Your task to perform on an android device: What's the weather going to be tomorrow? Image 0: 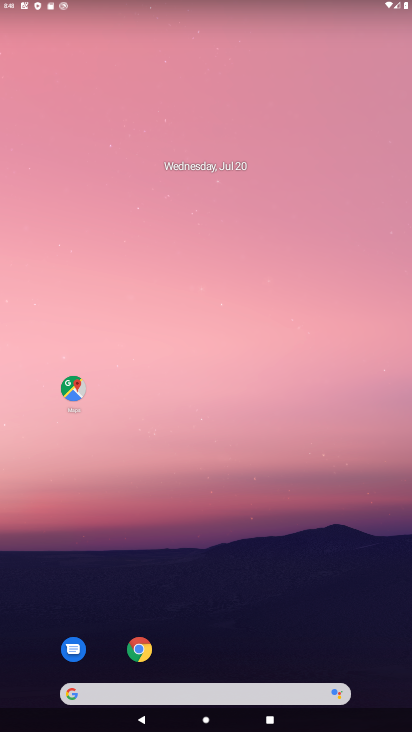
Step 0: drag from (276, 649) to (289, 167)
Your task to perform on an android device: What's the weather going to be tomorrow? Image 1: 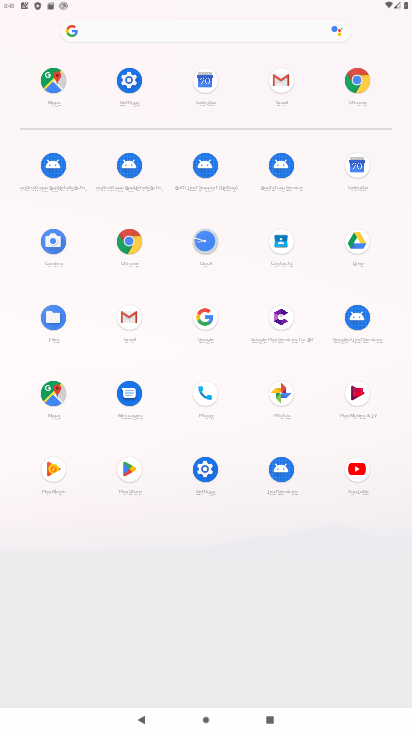
Step 1: click (193, 39)
Your task to perform on an android device: What's the weather going to be tomorrow? Image 2: 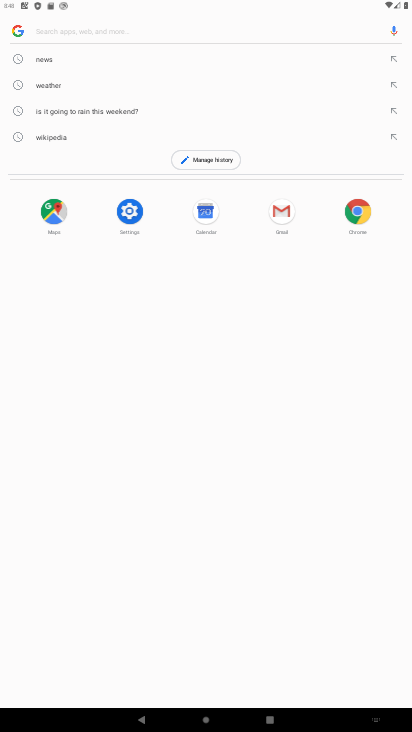
Step 2: click (82, 86)
Your task to perform on an android device: What's the weather going to be tomorrow? Image 3: 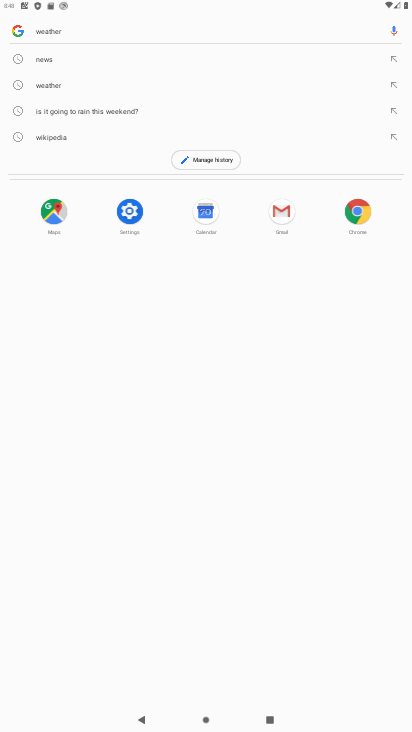
Step 3: task complete